Your task to perform on an android device: Open Maps and search for coffee Image 0: 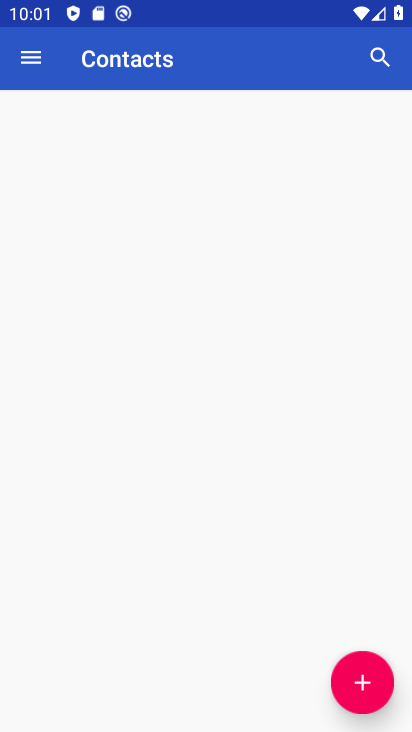
Step 0: drag from (332, 621) to (337, 155)
Your task to perform on an android device: Open Maps and search for coffee Image 1: 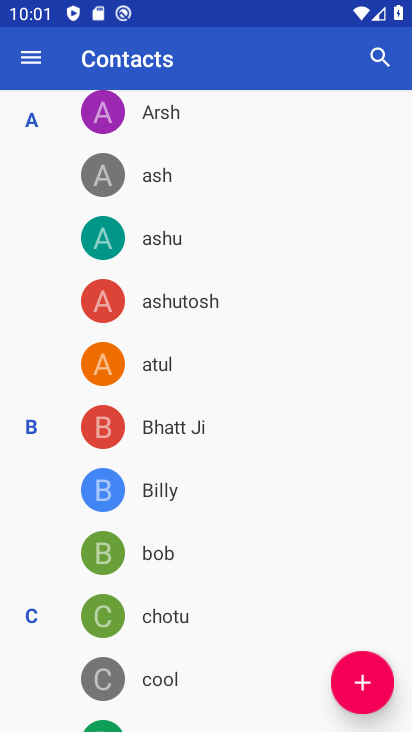
Step 1: press home button
Your task to perform on an android device: Open Maps and search for coffee Image 2: 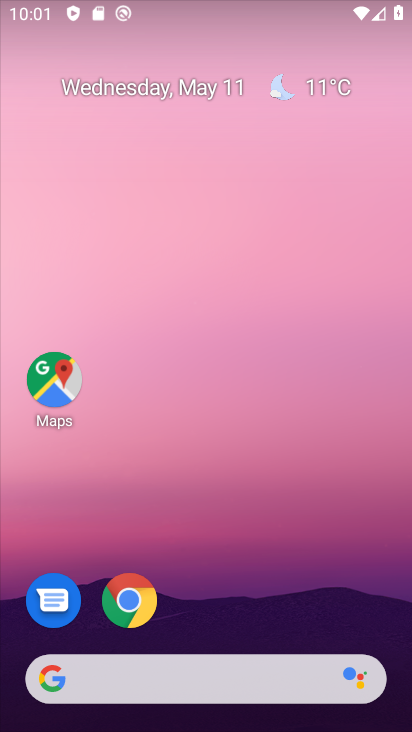
Step 2: click (52, 378)
Your task to perform on an android device: Open Maps and search for coffee Image 3: 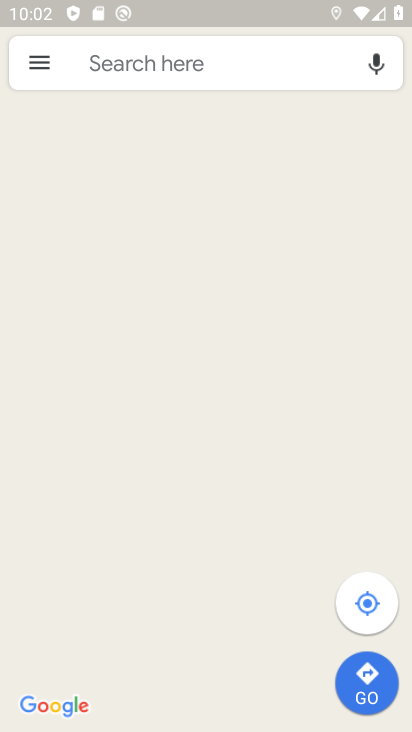
Step 3: click (143, 57)
Your task to perform on an android device: Open Maps and search for coffee Image 4: 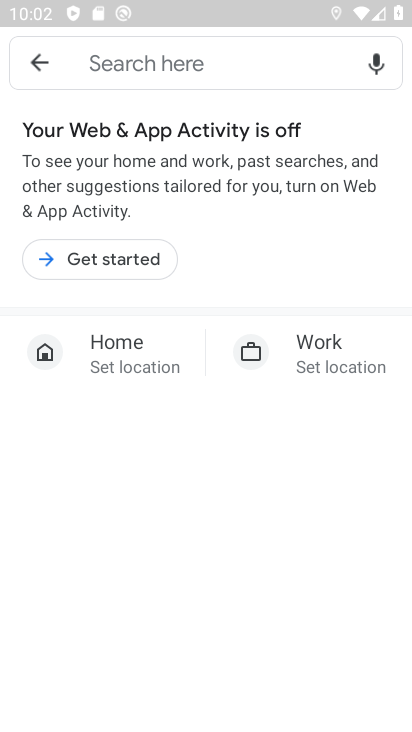
Step 4: click (143, 57)
Your task to perform on an android device: Open Maps and search for coffee Image 5: 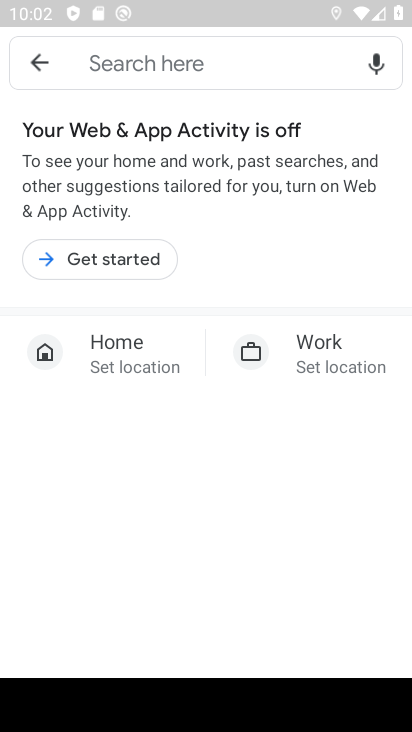
Step 5: click (143, 57)
Your task to perform on an android device: Open Maps and search for coffee Image 6: 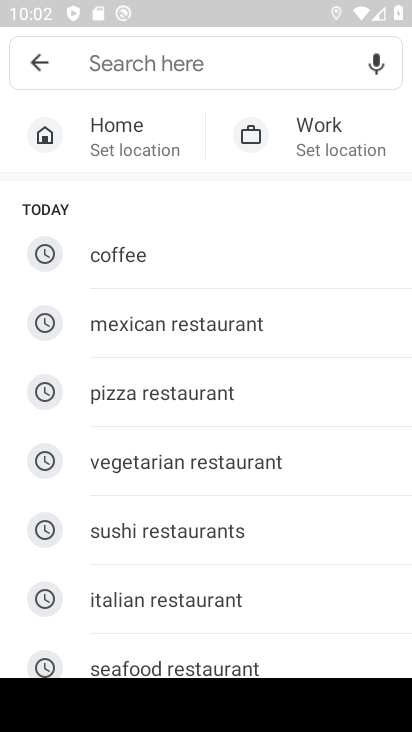
Step 6: click (146, 240)
Your task to perform on an android device: Open Maps and search for coffee Image 7: 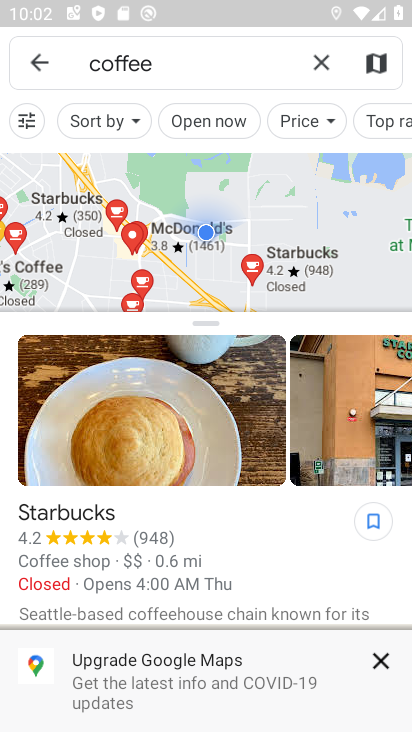
Step 7: task complete